Your task to perform on an android device: delete the emails in spam in the gmail app Image 0: 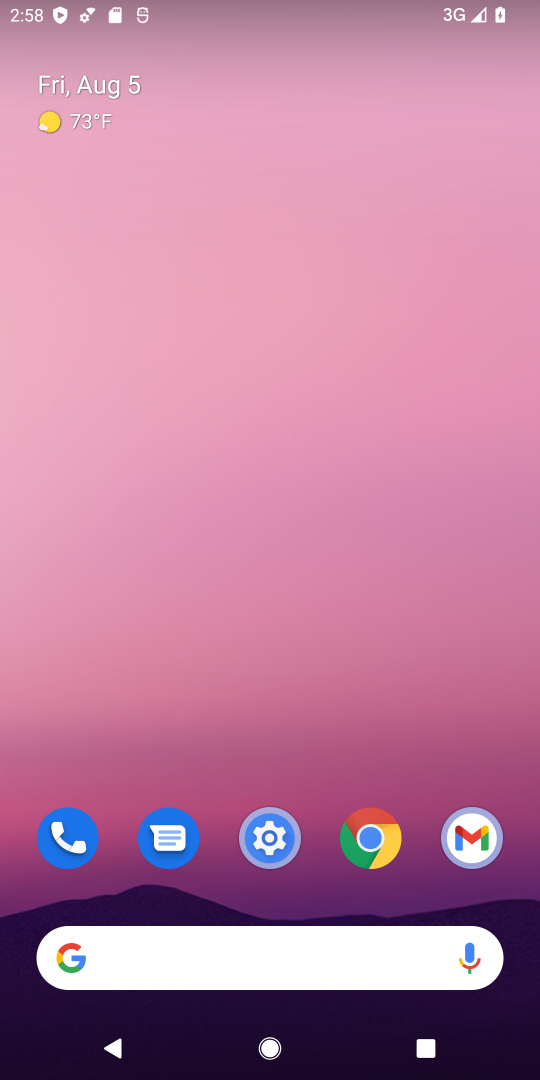
Step 0: drag from (277, 409) to (279, 34)
Your task to perform on an android device: delete the emails in spam in the gmail app Image 1: 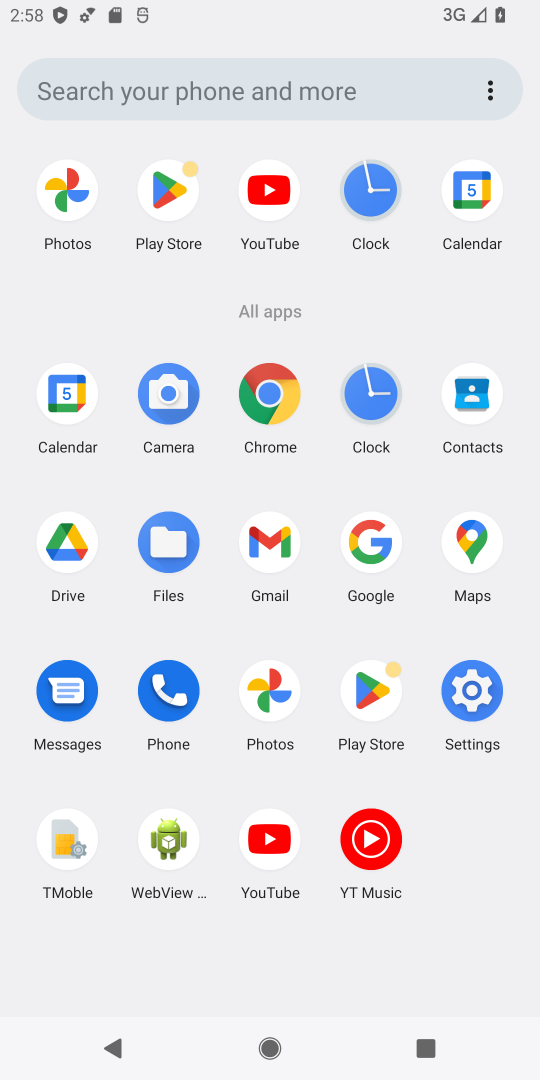
Step 1: click (265, 527)
Your task to perform on an android device: delete the emails in spam in the gmail app Image 2: 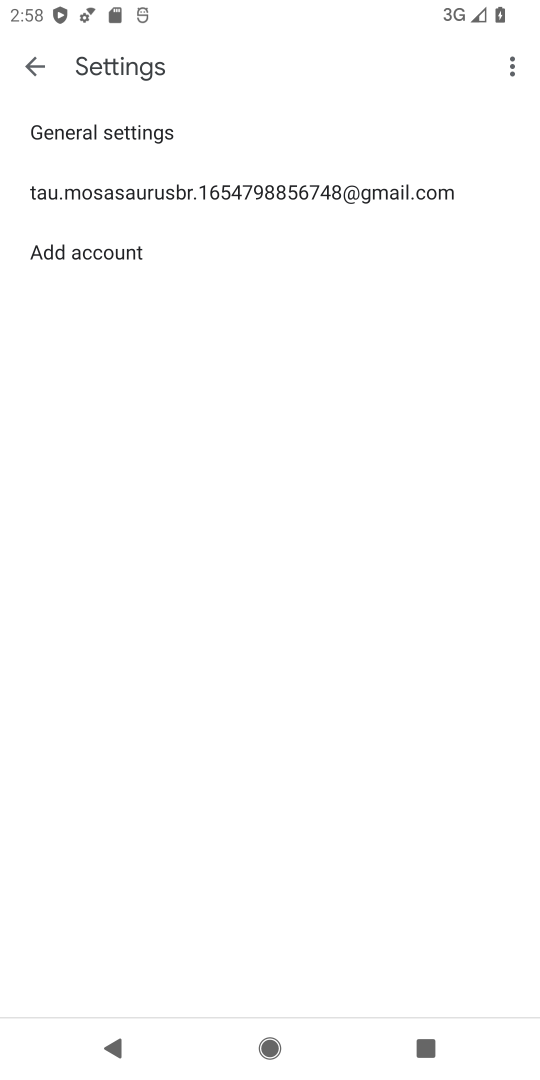
Step 2: click (28, 66)
Your task to perform on an android device: delete the emails in spam in the gmail app Image 3: 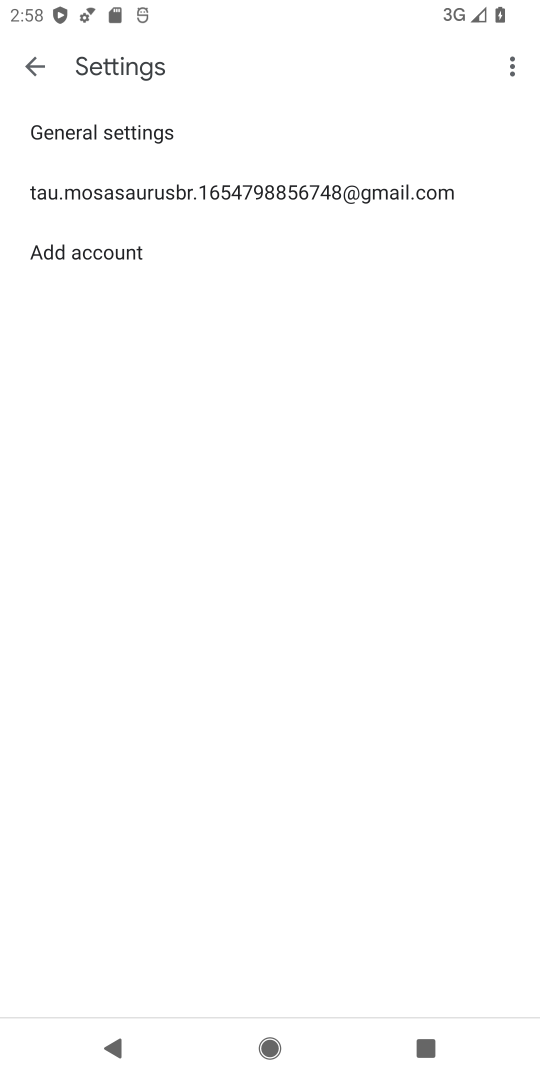
Step 3: click (28, 65)
Your task to perform on an android device: delete the emails in spam in the gmail app Image 4: 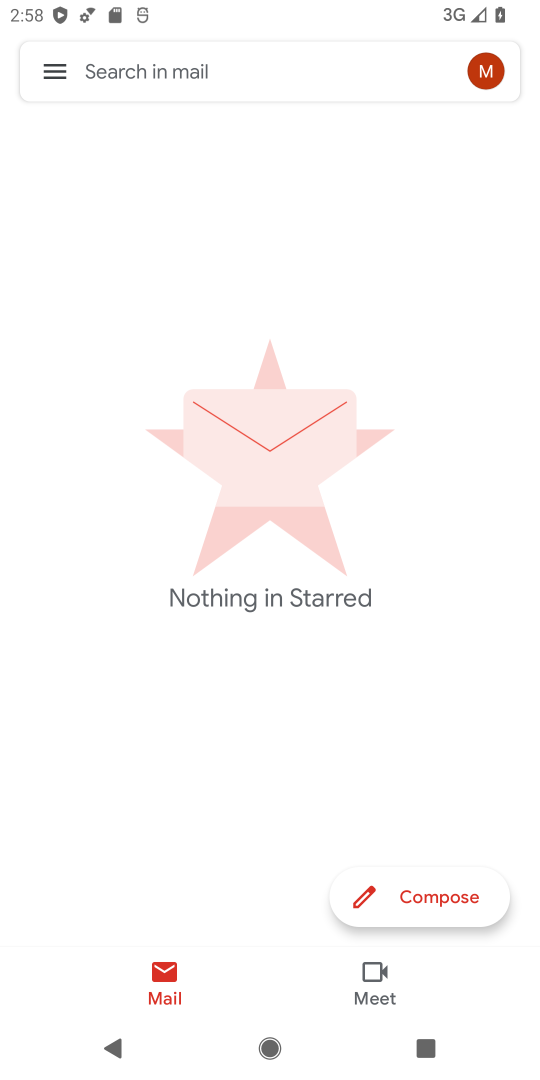
Step 4: click (58, 64)
Your task to perform on an android device: delete the emails in spam in the gmail app Image 5: 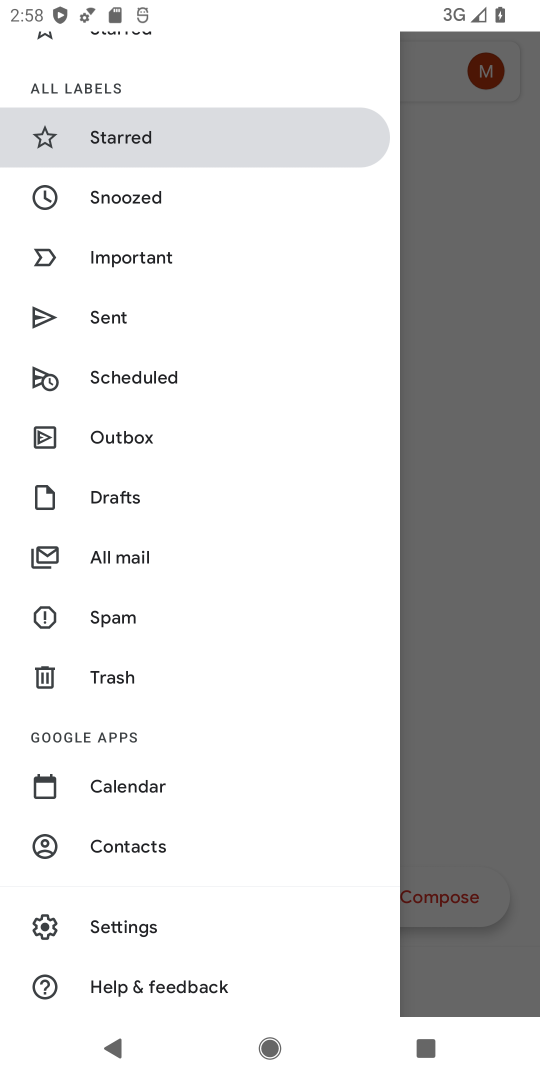
Step 5: click (144, 552)
Your task to perform on an android device: delete the emails in spam in the gmail app Image 6: 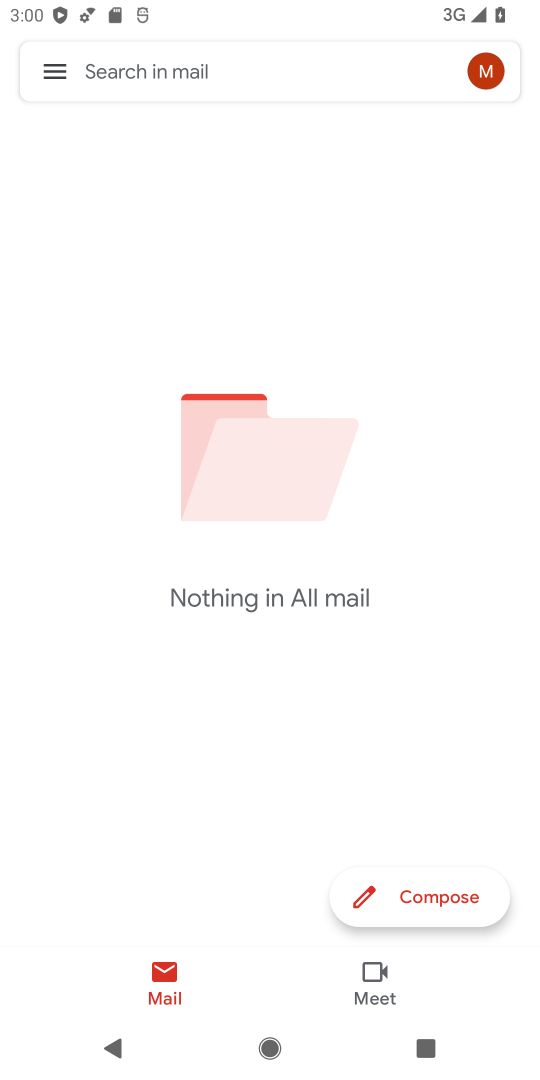
Step 6: task complete